Your task to perform on an android device: Open my contact list Image 0: 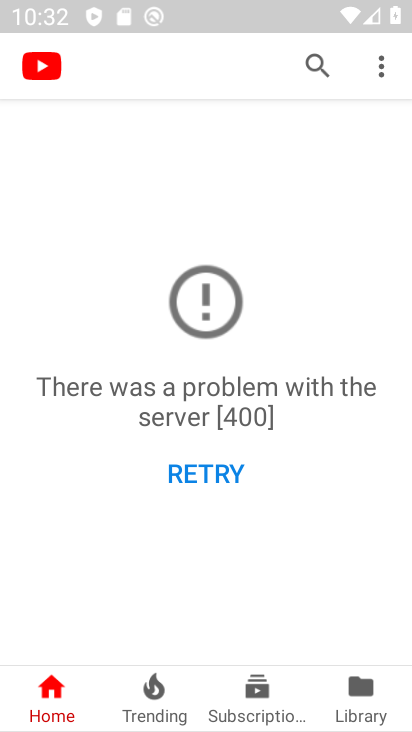
Step 0: press home button
Your task to perform on an android device: Open my contact list Image 1: 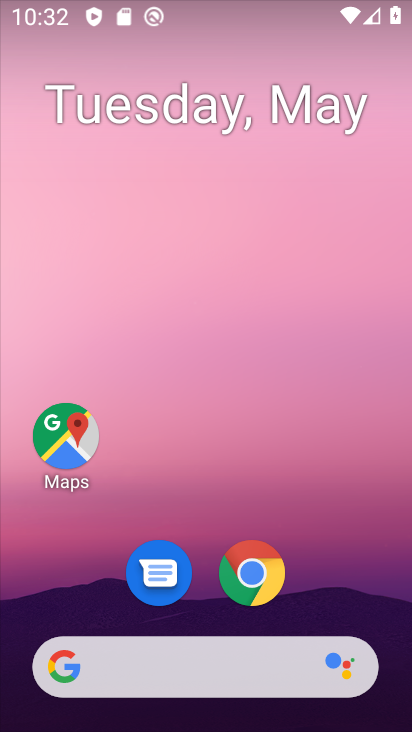
Step 1: drag from (340, 542) to (388, 35)
Your task to perform on an android device: Open my contact list Image 2: 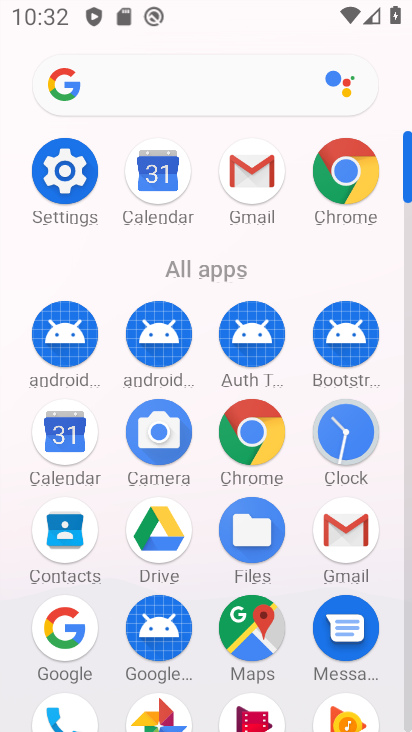
Step 2: drag from (294, 315) to (319, 49)
Your task to perform on an android device: Open my contact list Image 3: 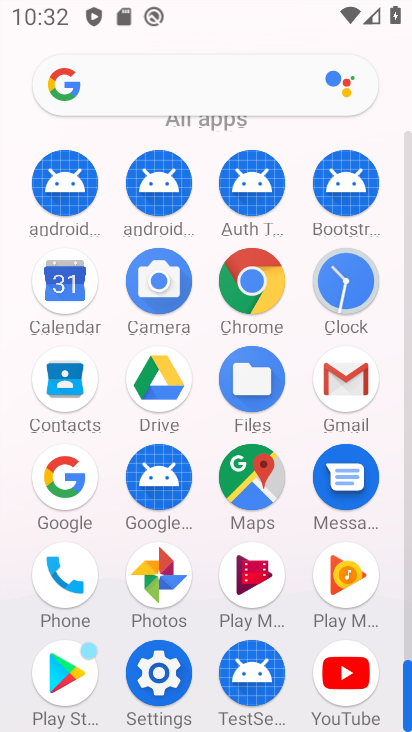
Step 3: click (58, 368)
Your task to perform on an android device: Open my contact list Image 4: 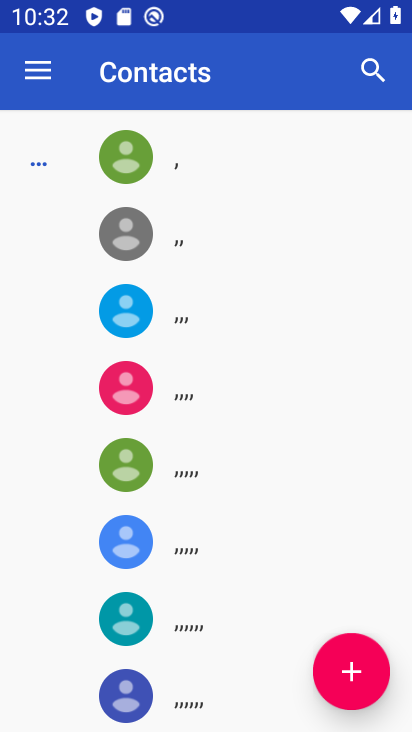
Step 4: task complete